Your task to perform on an android device: Open Youtube and go to "Your channel" Image 0: 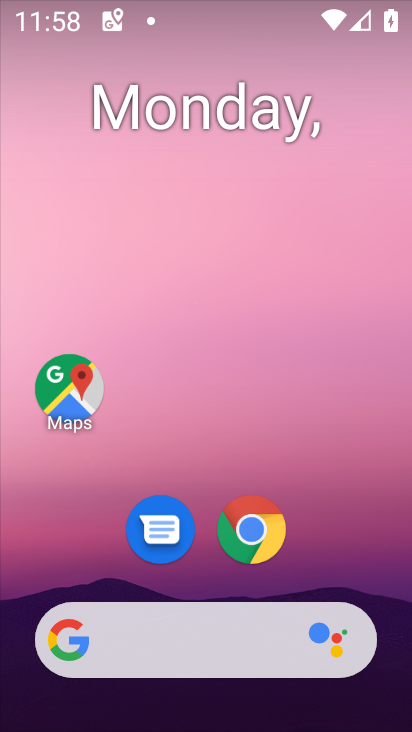
Step 0: press home button
Your task to perform on an android device: Open Youtube and go to "Your channel" Image 1: 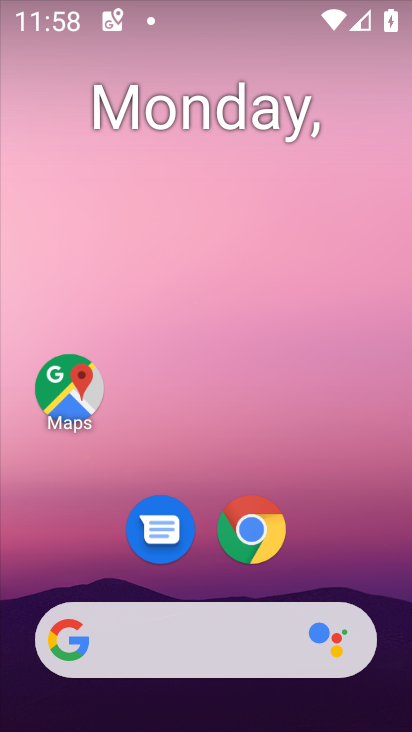
Step 1: drag from (208, 681) to (276, 166)
Your task to perform on an android device: Open Youtube and go to "Your channel" Image 2: 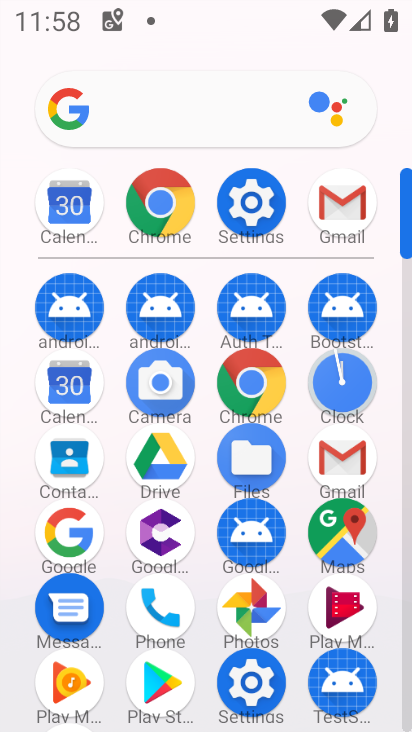
Step 2: drag from (204, 641) to (201, 411)
Your task to perform on an android device: Open Youtube and go to "Your channel" Image 3: 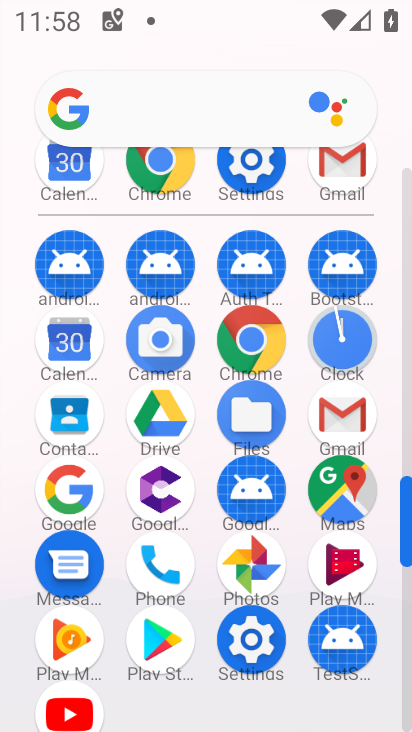
Step 3: click (69, 704)
Your task to perform on an android device: Open Youtube and go to "Your channel" Image 4: 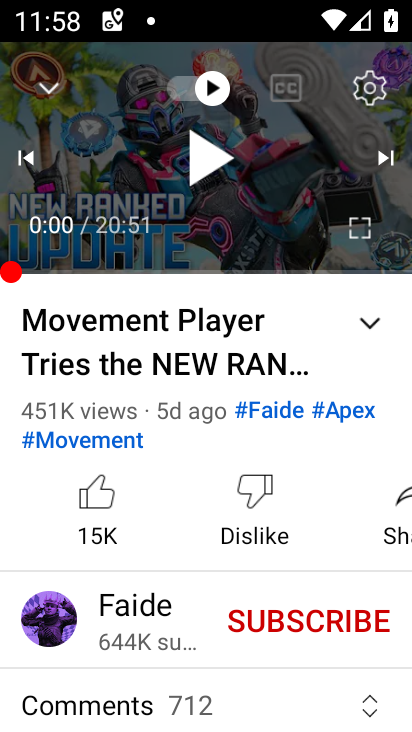
Step 4: click (53, 89)
Your task to perform on an android device: Open Youtube and go to "Your channel" Image 5: 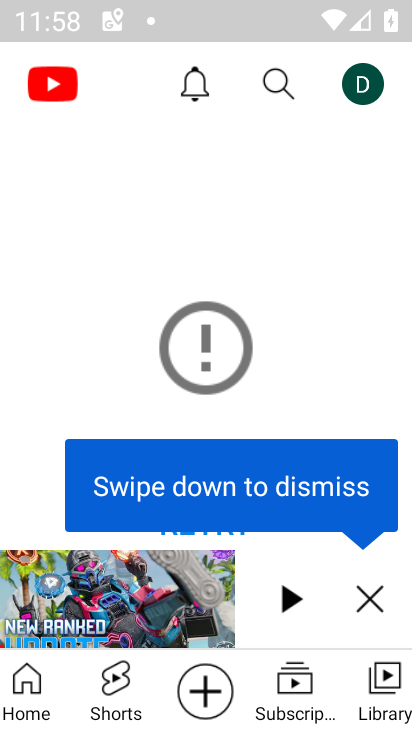
Step 5: click (349, 93)
Your task to perform on an android device: Open Youtube and go to "Your channel" Image 6: 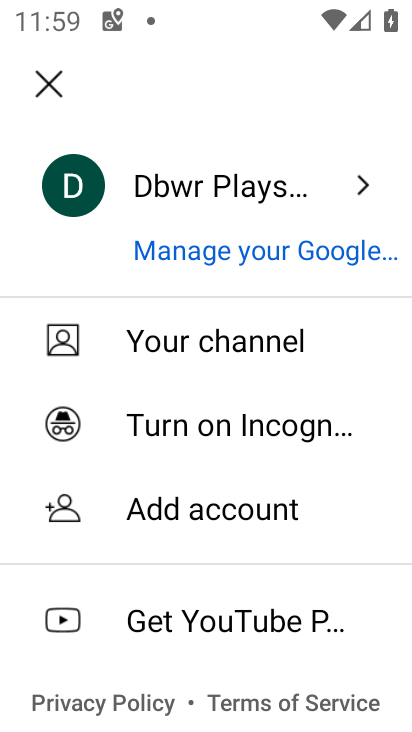
Step 6: click (161, 339)
Your task to perform on an android device: Open Youtube and go to "Your channel" Image 7: 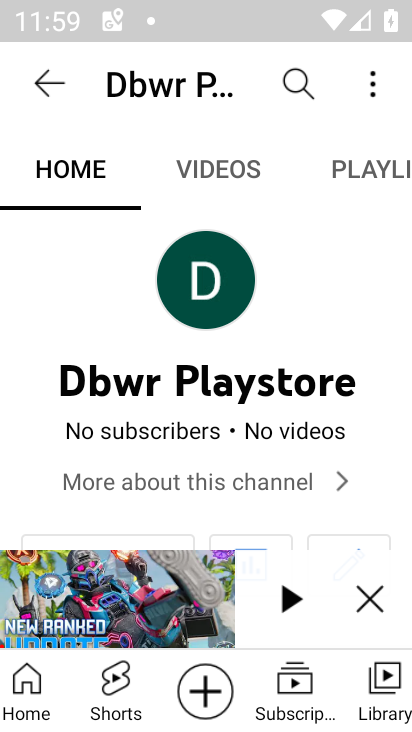
Step 7: task complete